Your task to perform on an android device: empty trash in the gmail app Image 0: 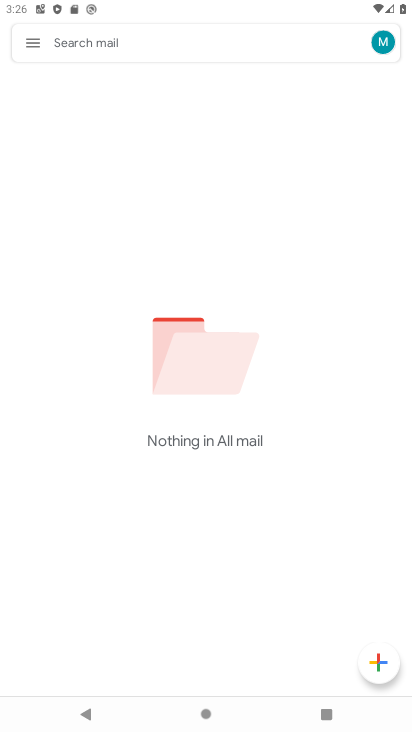
Step 0: click (39, 42)
Your task to perform on an android device: empty trash in the gmail app Image 1: 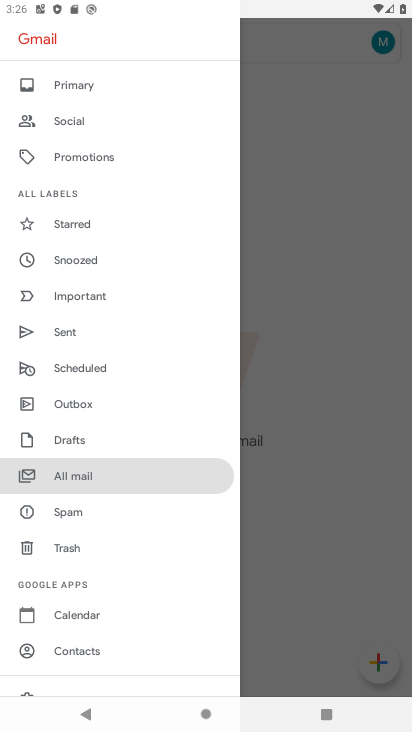
Step 1: click (79, 551)
Your task to perform on an android device: empty trash in the gmail app Image 2: 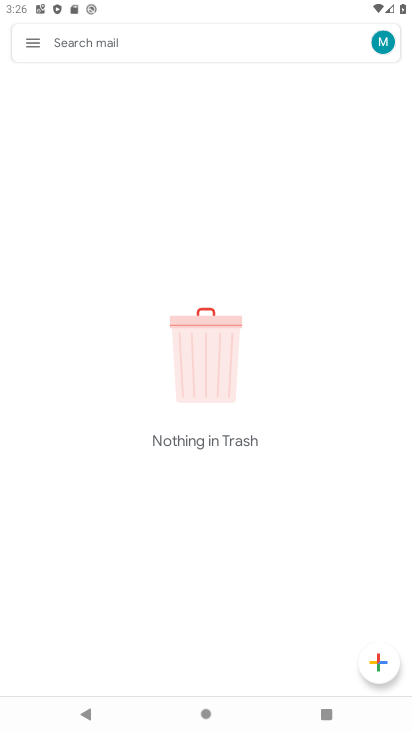
Step 2: task complete